Your task to perform on an android device: Go to notification settings Image 0: 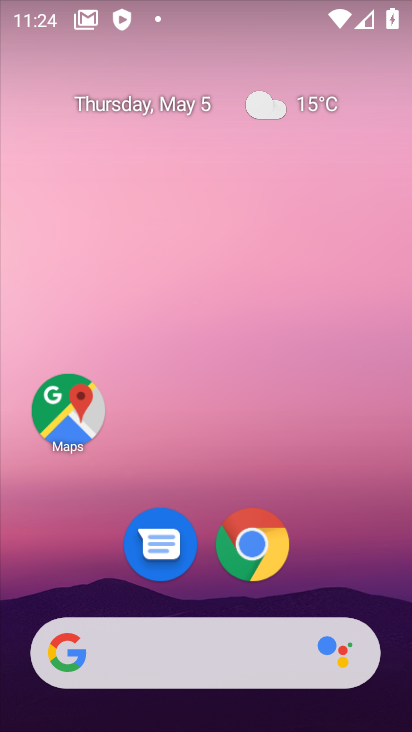
Step 0: drag from (57, 618) to (214, 101)
Your task to perform on an android device: Go to notification settings Image 1: 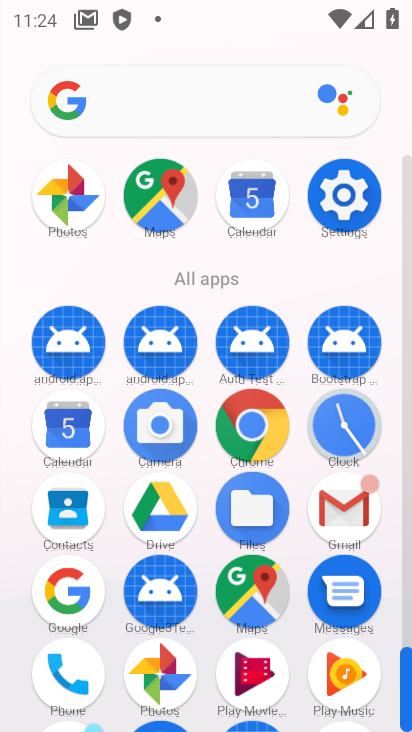
Step 1: click (340, 204)
Your task to perform on an android device: Go to notification settings Image 2: 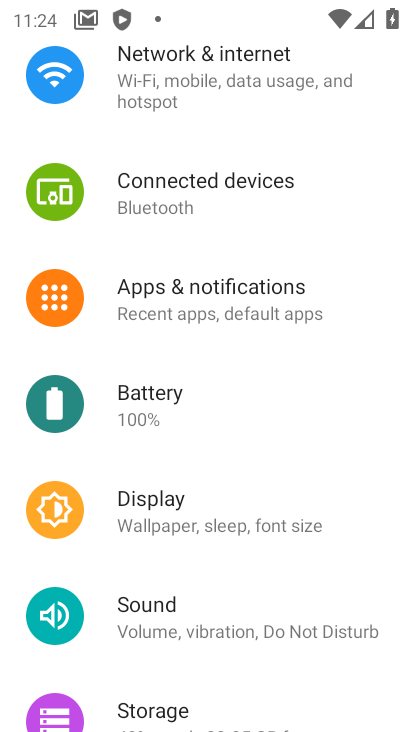
Step 2: click (241, 304)
Your task to perform on an android device: Go to notification settings Image 3: 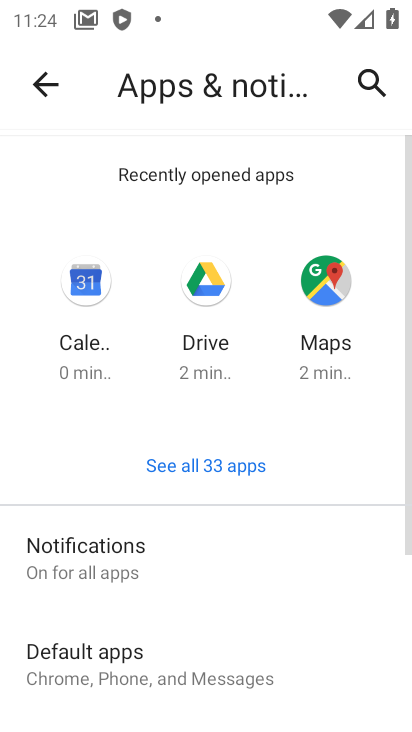
Step 3: click (172, 572)
Your task to perform on an android device: Go to notification settings Image 4: 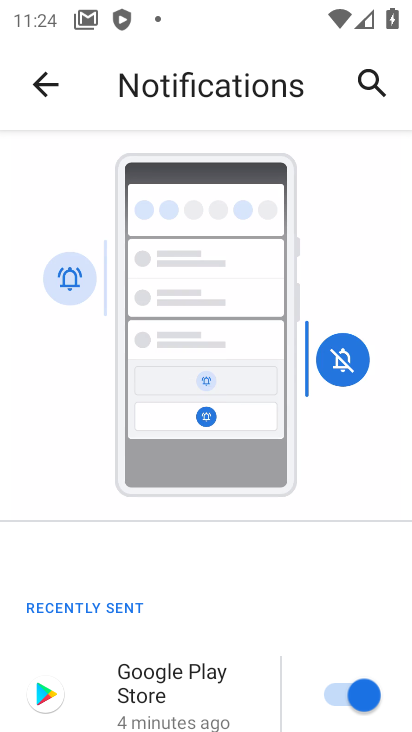
Step 4: task complete